Your task to perform on an android device: check battery use Image 0: 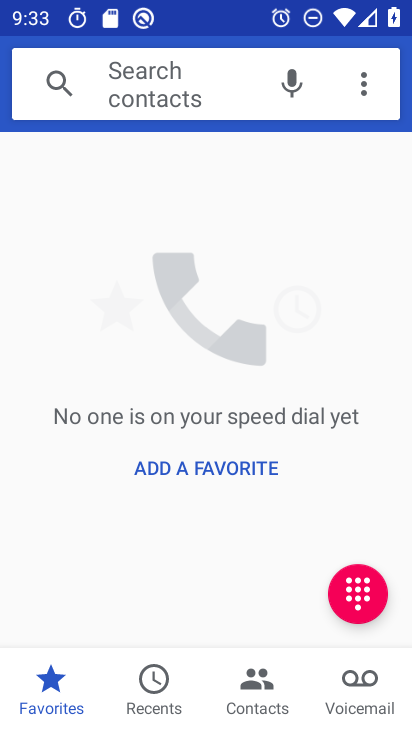
Step 0: press home button
Your task to perform on an android device: check battery use Image 1: 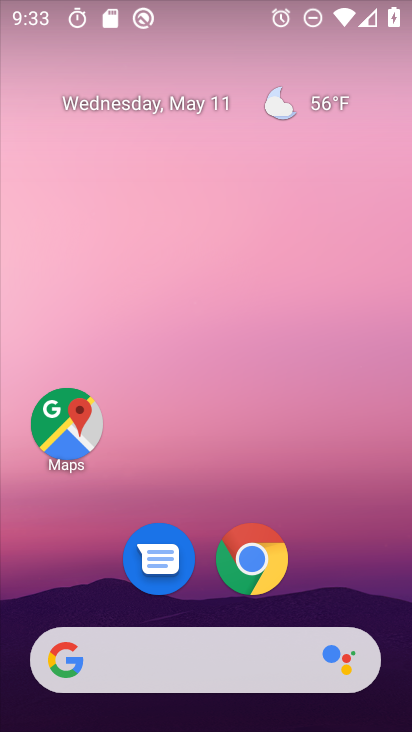
Step 1: drag from (325, 511) to (301, 177)
Your task to perform on an android device: check battery use Image 2: 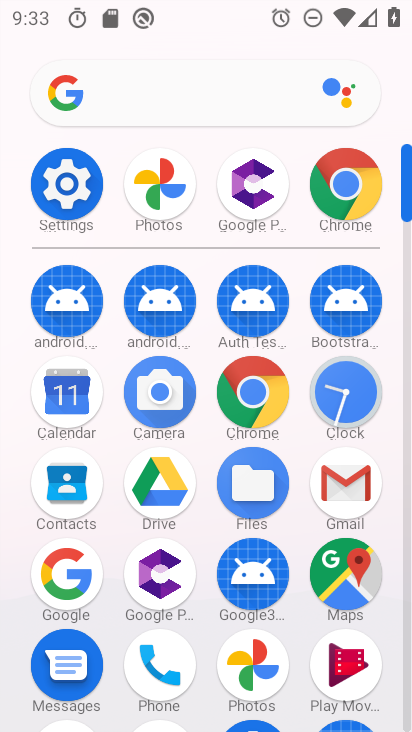
Step 2: click (80, 206)
Your task to perform on an android device: check battery use Image 3: 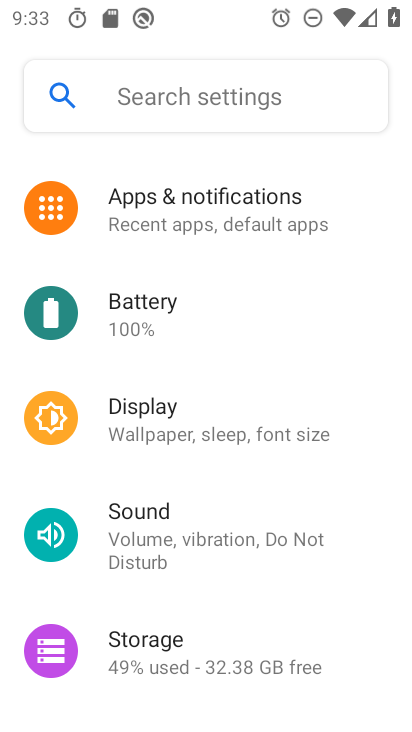
Step 3: click (188, 311)
Your task to perform on an android device: check battery use Image 4: 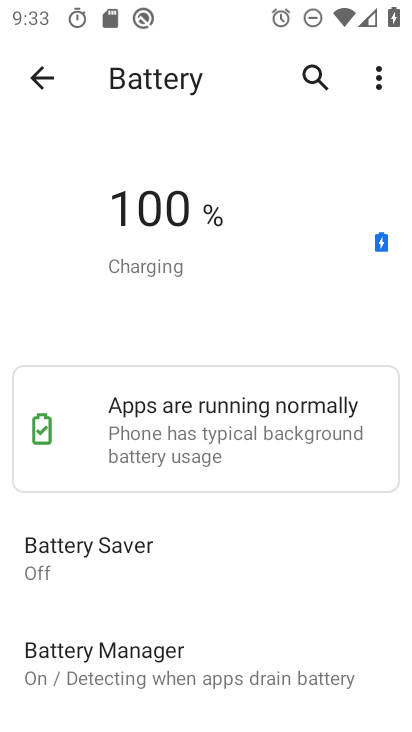
Step 4: click (380, 79)
Your task to perform on an android device: check battery use Image 5: 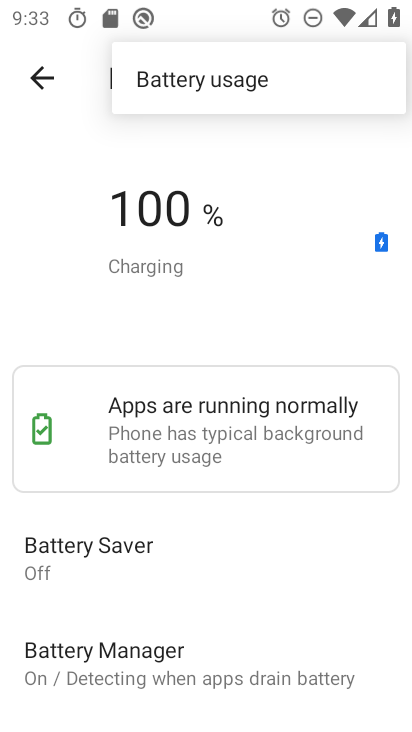
Step 5: click (312, 79)
Your task to perform on an android device: check battery use Image 6: 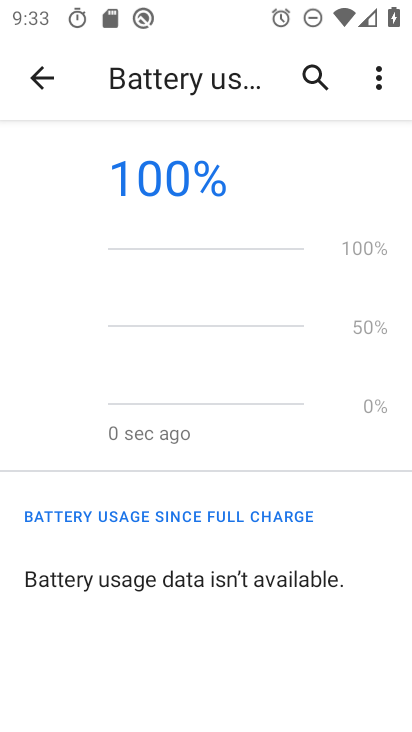
Step 6: task complete